Your task to perform on an android device: Go to Yahoo.com Image 0: 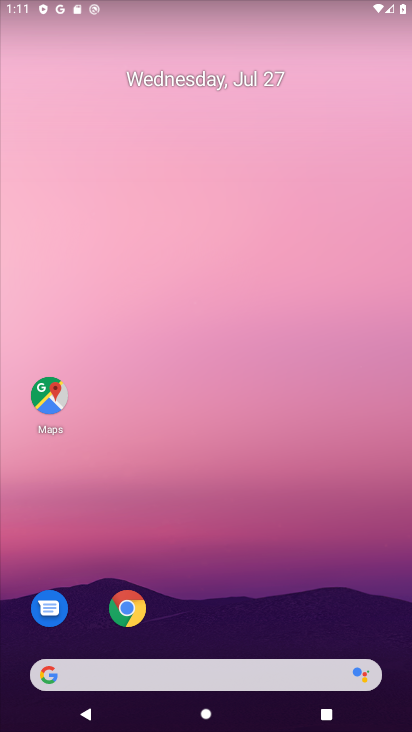
Step 0: click (139, 610)
Your task to perform on an android device: Go to Yahoo.com Image 1: 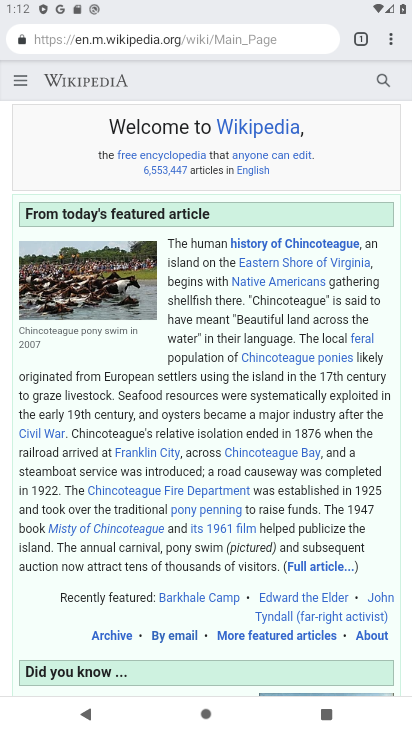
Step 1: click (206, 39)
Your task to perform on an android device: Go to Yahoo.com Image 2: 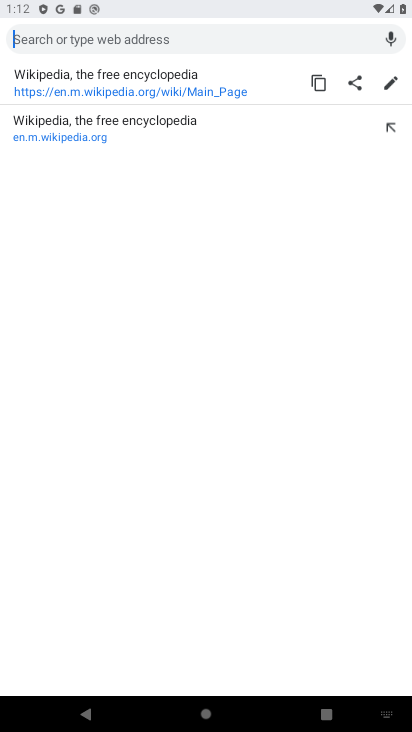
Step 2: type "www.yahoo.com"
Your task to perform on an android device: Go to Yahoo.com Image 3: 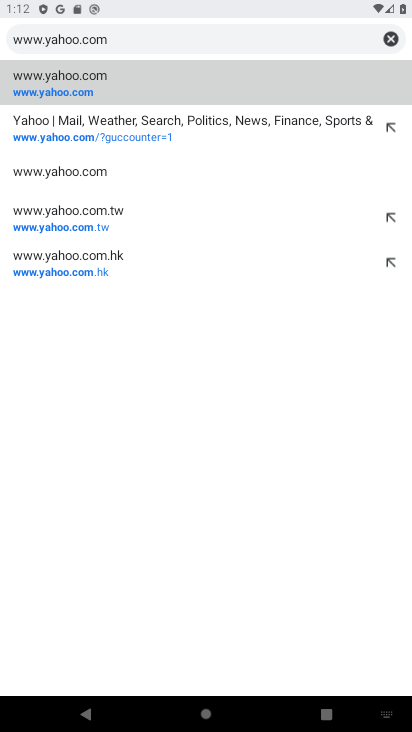
Step 3: click (45, 92)
Your task to perform on an android device: Go to Yahoo.com Image 4: 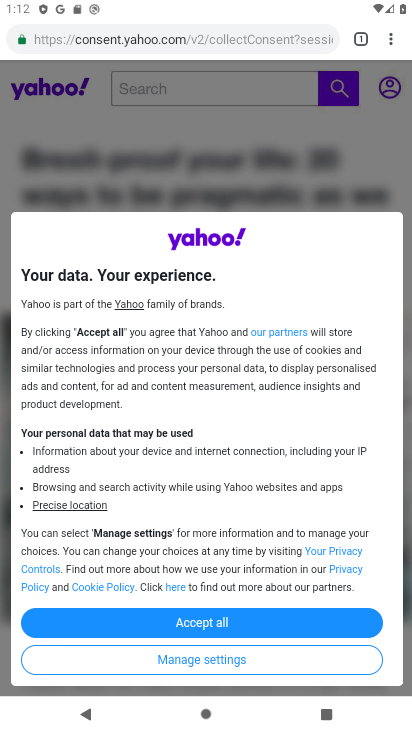
Step 4: task complete